Your task to perform on an android device: install app "DoorDash - Food Delivery" Image 0: 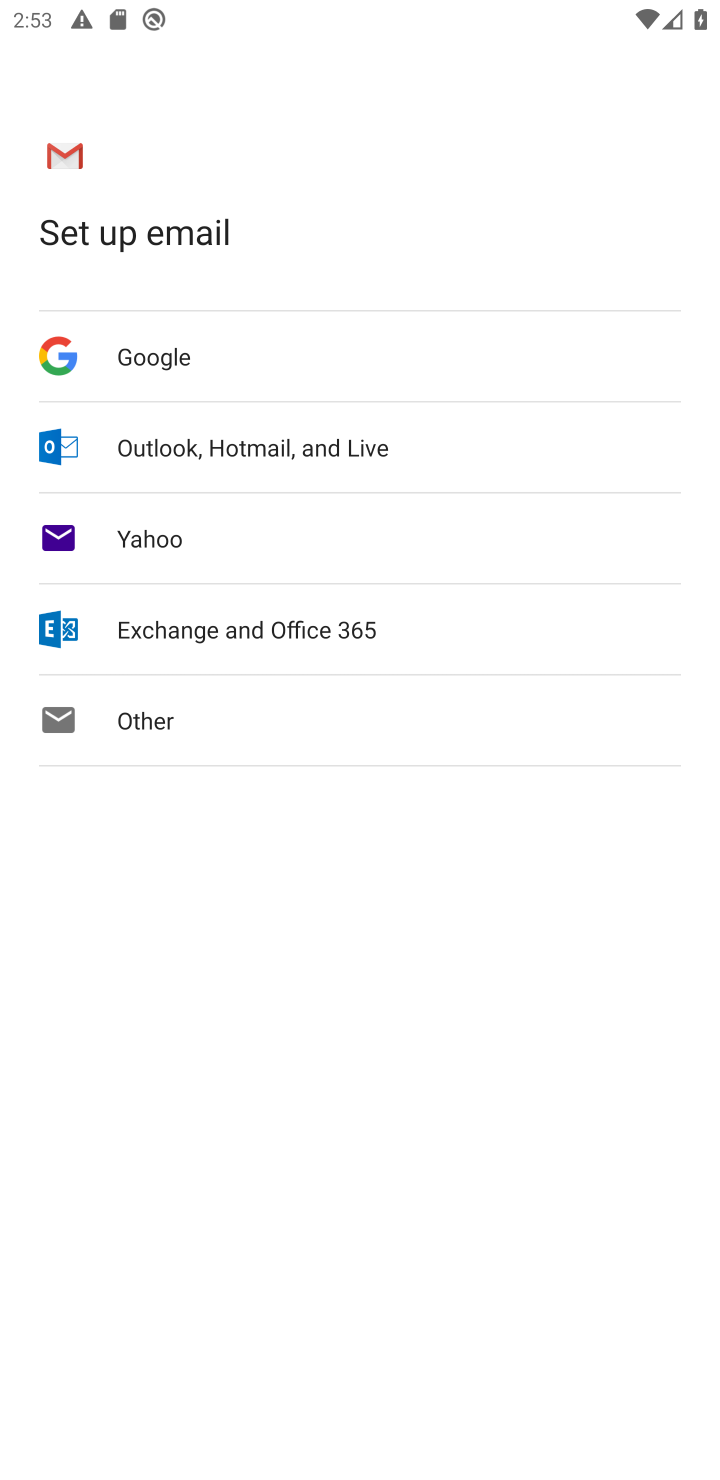
Step 0: press home button
Your task to perform on an android device: install app "DoorDash - Food Delivery" Image 1: 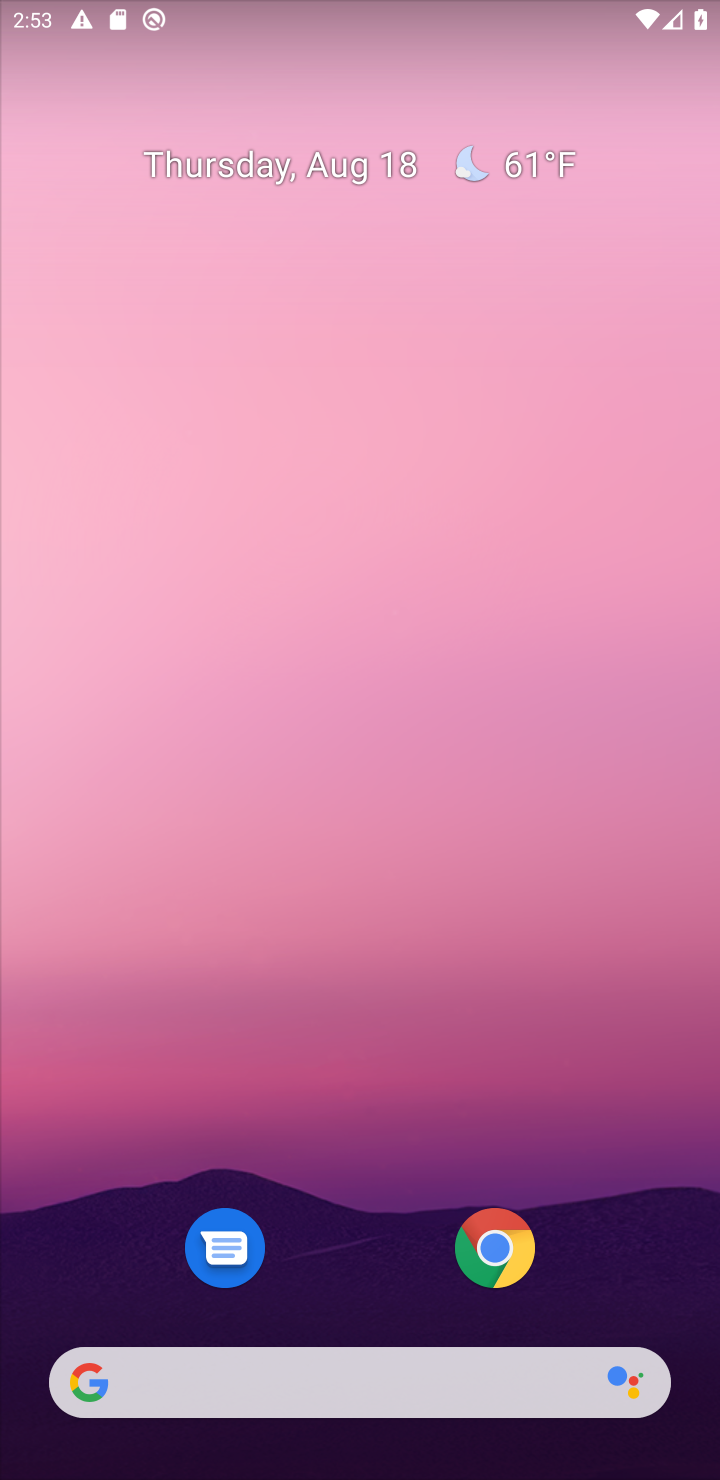
Step 1: drag from (336, 1260) to (344, 179)
Your task to perform on an android device: install app "DoorDash - Food Delivery" Image 2: 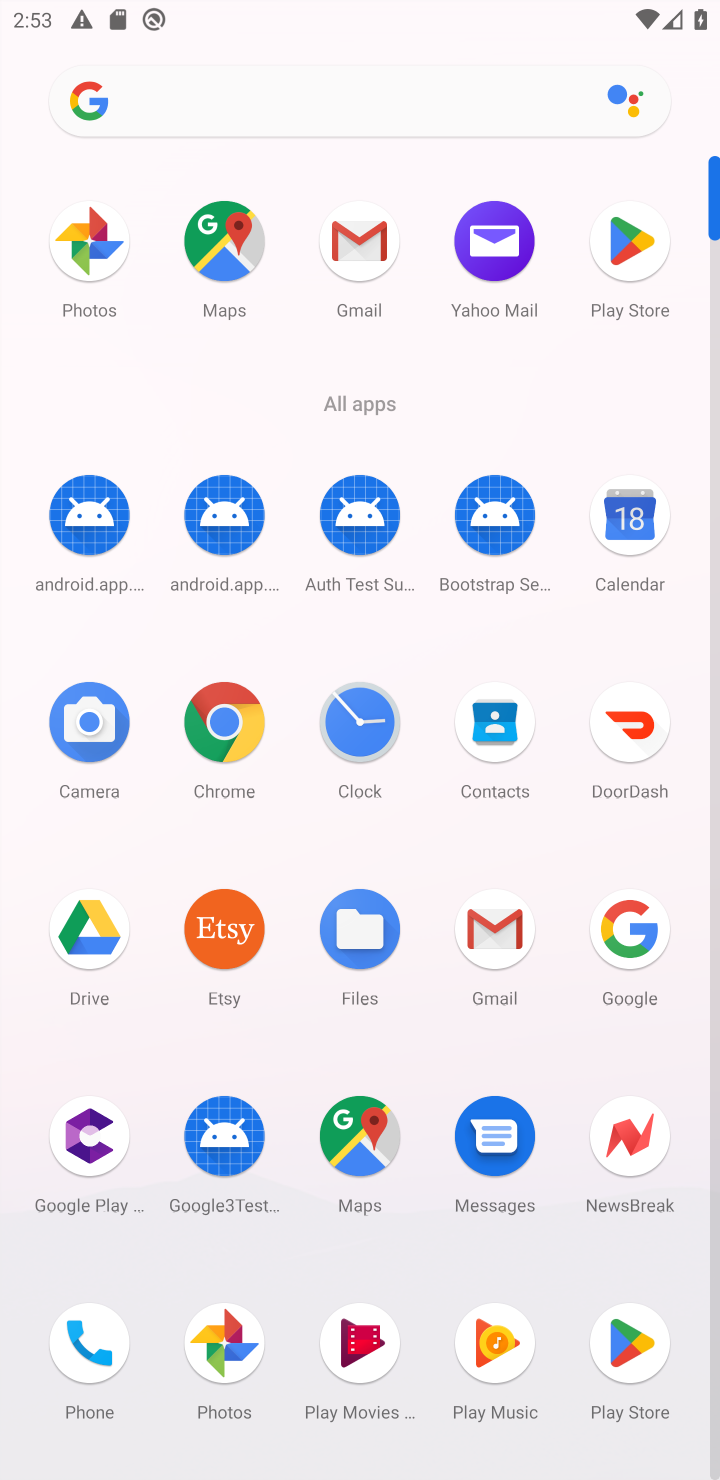
Step 2: click (634, 1337)
Your task to perform on an android device: install app "DoorDash - Food Delivery" Image 3: 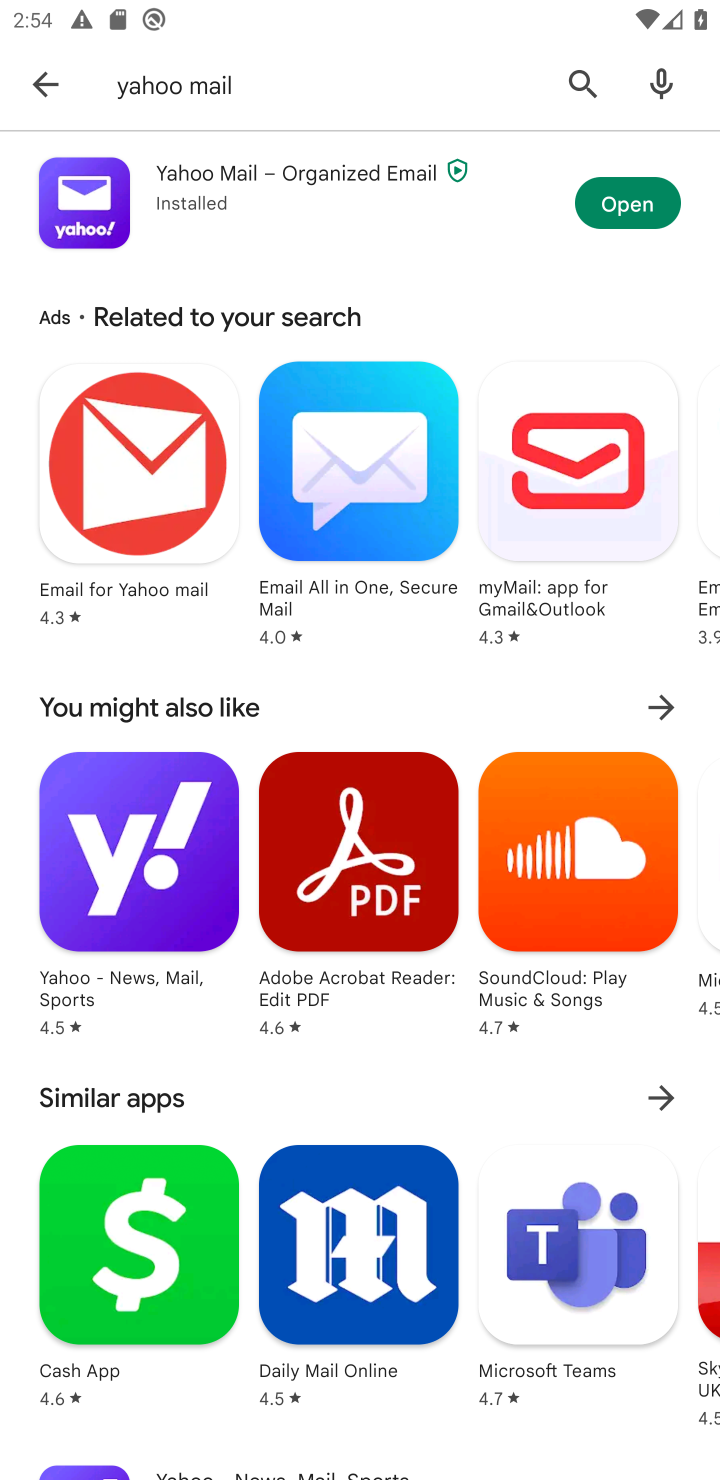
Step 3: click (576, 73)
Your task to perform on an android device: install app "DoorDash - Food Delivery" Image 4: 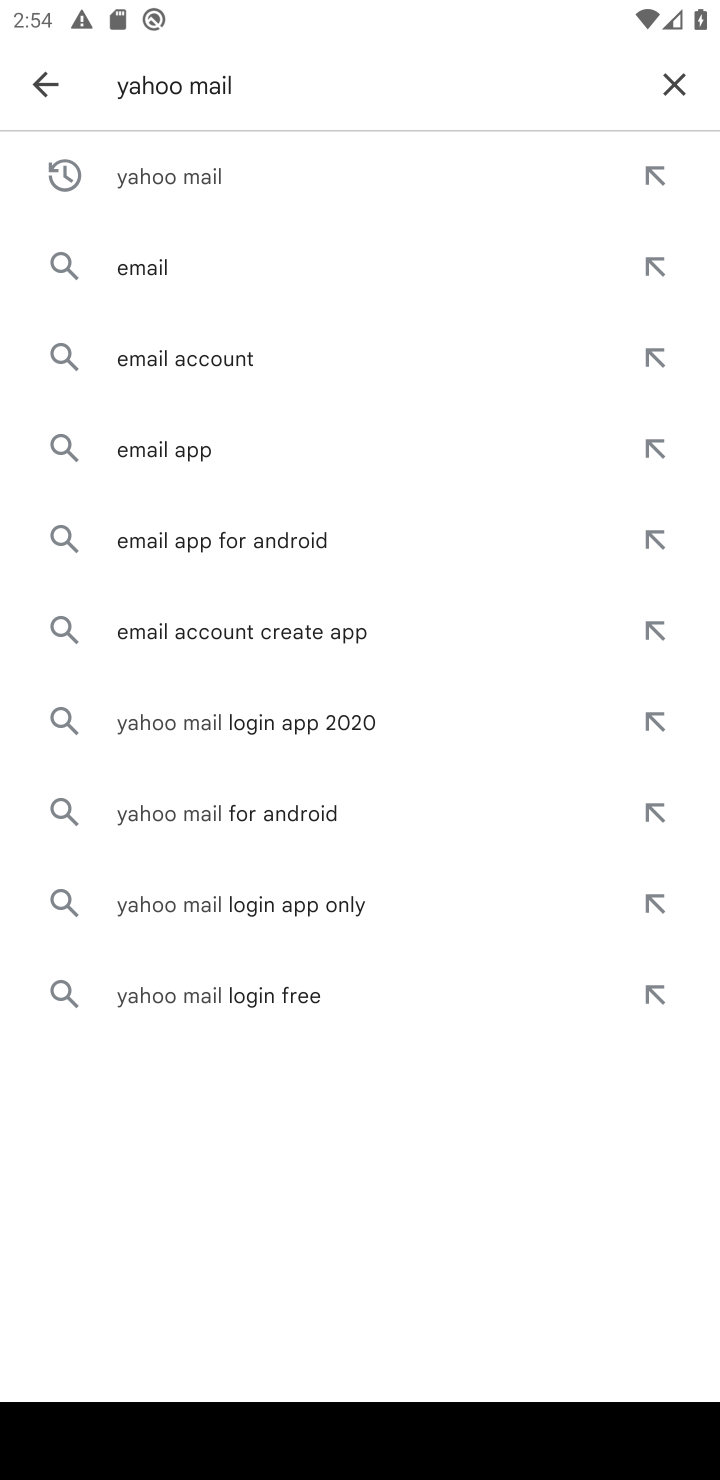
Step 4: click (673, 77)
Your task to perform on an android device: install app "DoorDash - Food Delivery" Image 5: 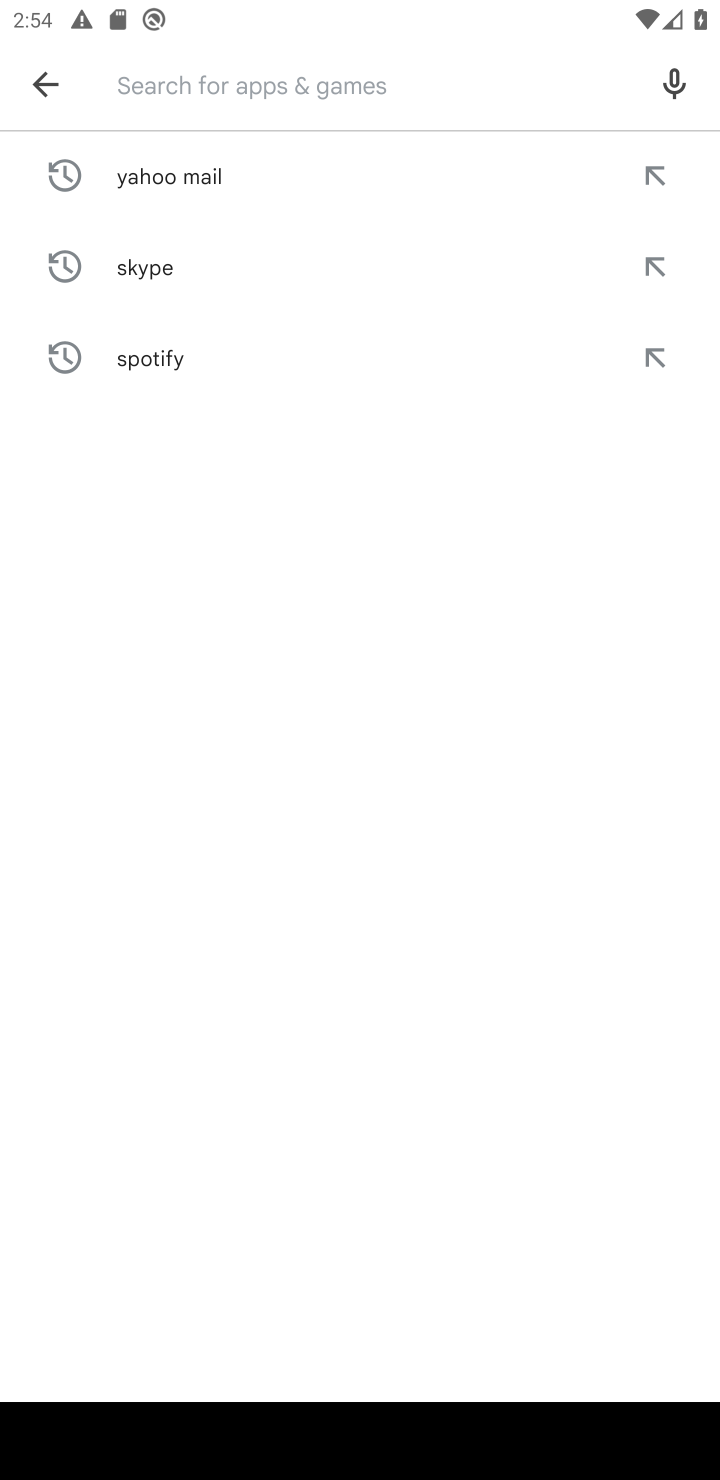
Step 5: type "DoorDash - Food Delivery"
Your task to perform on an android device: install app "DoorDash - Food Delivery" Image 6: 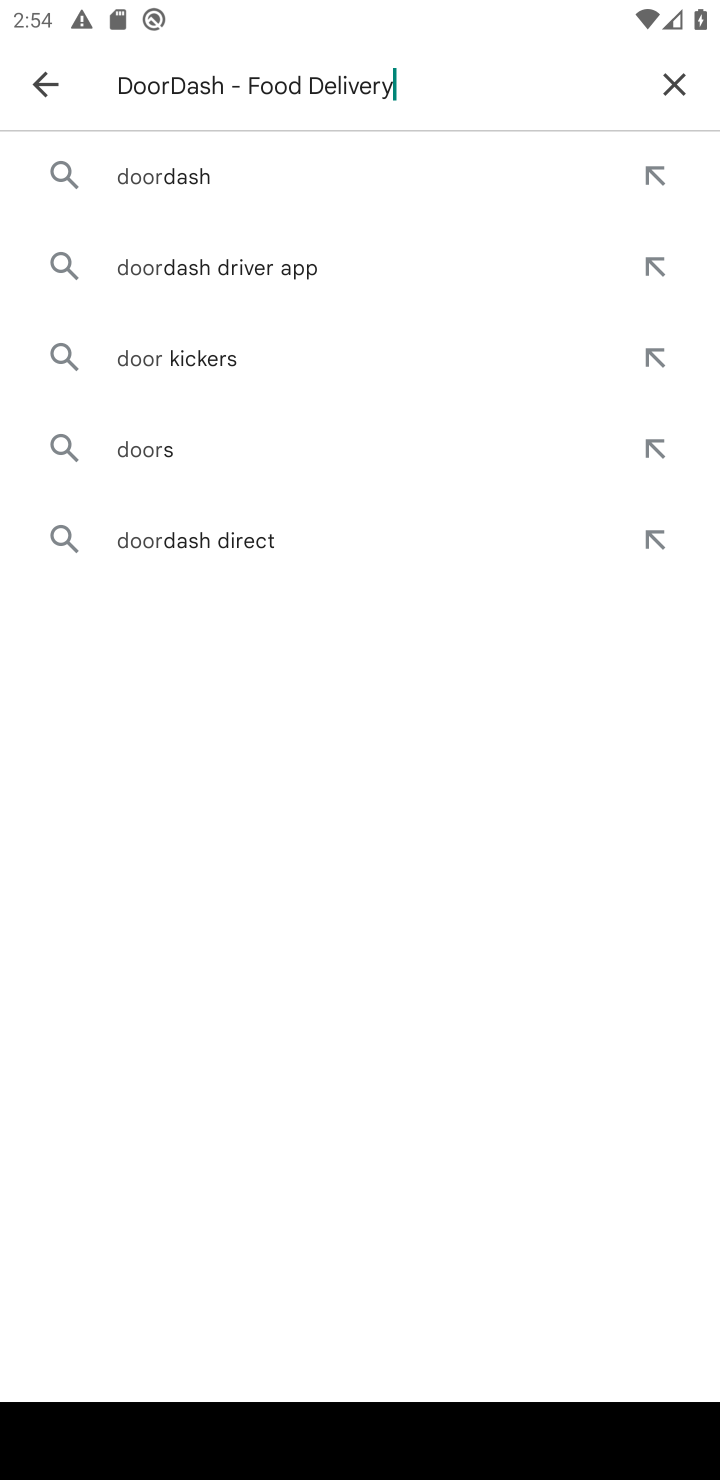
Step 6: type ""
Your task to perform on an android device: install app "DoorDash - Food Delivery" Image 7: 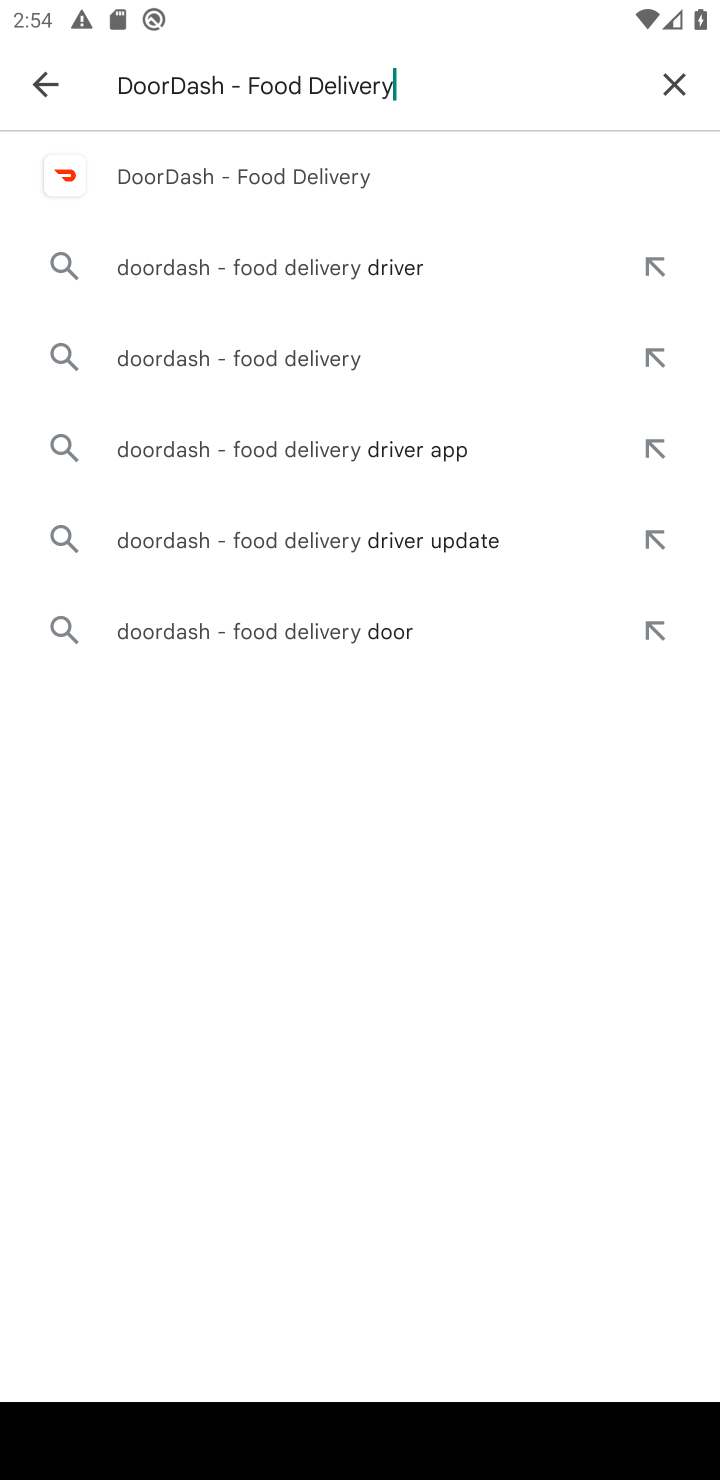
Step 7: click (203, 171)
Your task to perform on an android device: install app "DoorDash - Food Delivery" Image 8: 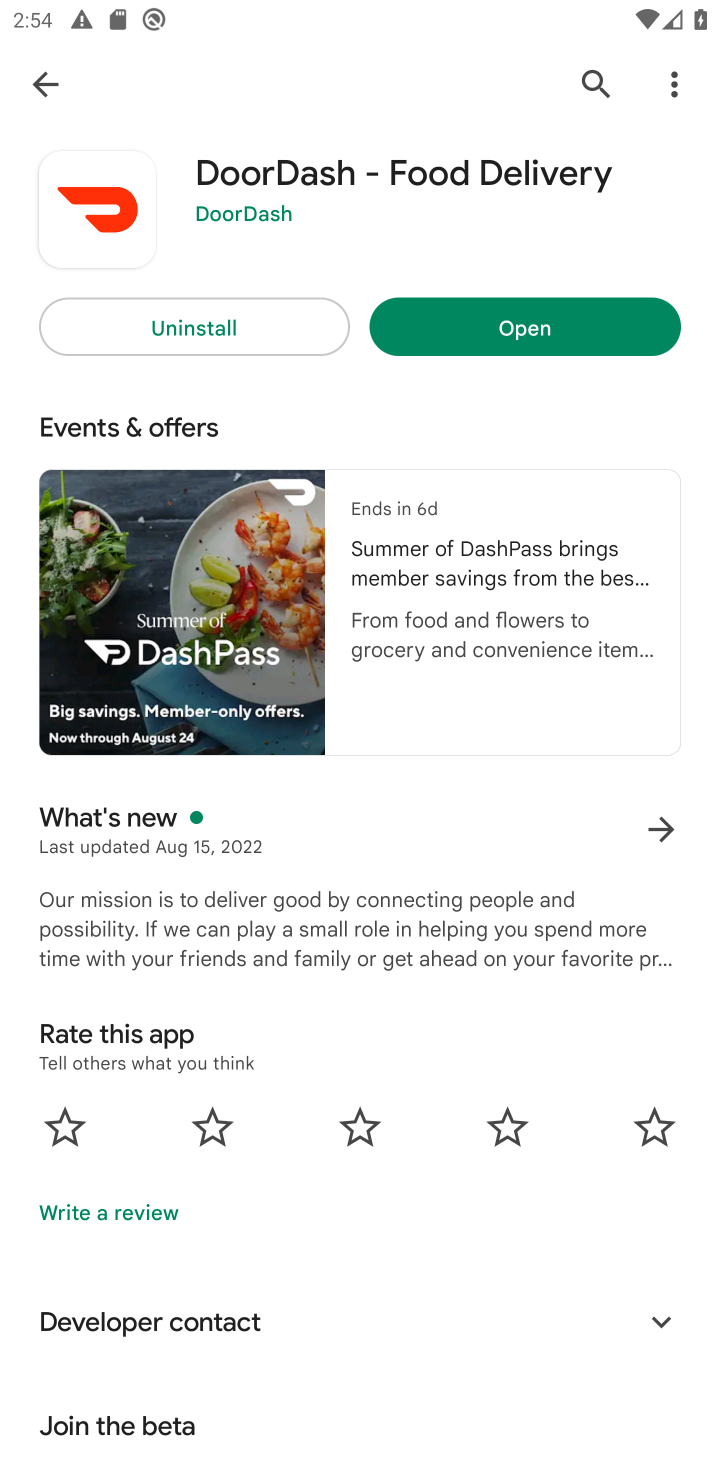
Step 8: task complete